Your task to perform on an android device: turn notification dots on Image 0: 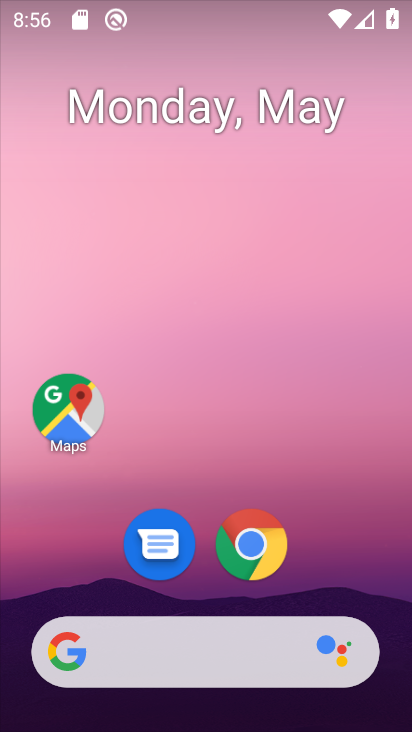
Step 0: drag from (112, 615) to (171, 295)
Your task to perform on an android device: turn notification dots on Image 1: 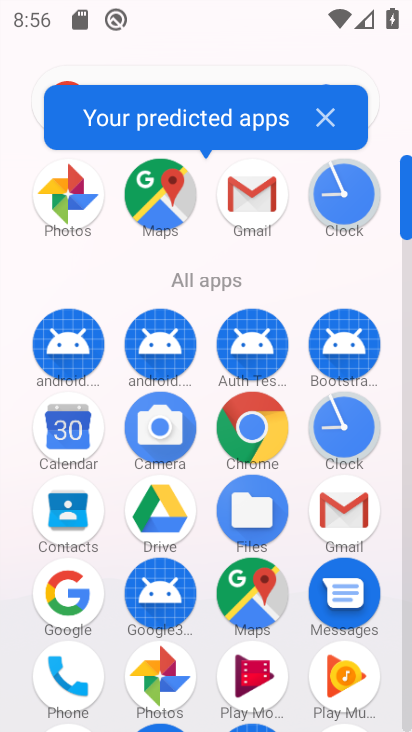
Step 1: drag from (153, 639) to (200, 354)
Your task to perform on an android device: turn notification dots on Image 2: 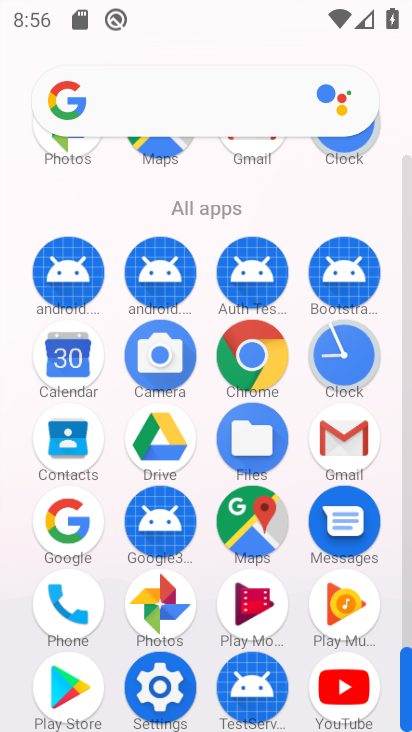
Step 2: click (162, 692)
Your task to perform on an android device: turn notification dots on Image 3: 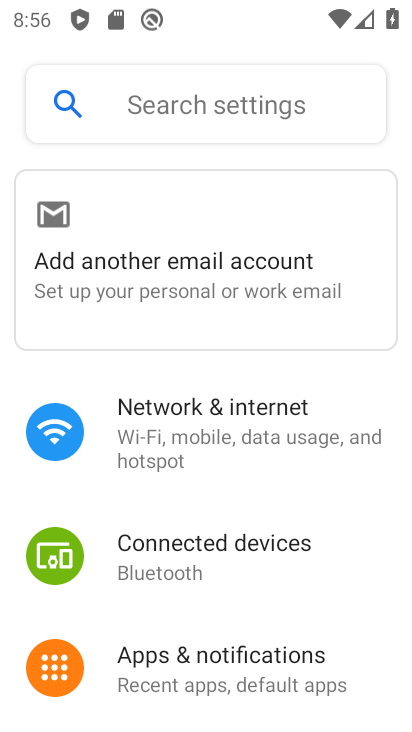
Step 3: drag from (147, 650) to (241, 300)
Your task to perform on an android device: turn notification dots on Image 4: 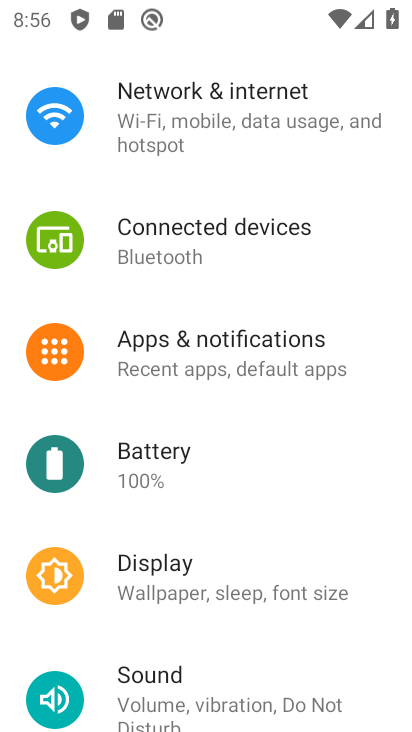
Step 4: drag from (172, 695) to (230, 422)
Your task to perform on an android device: turn notification dots on Image 5: 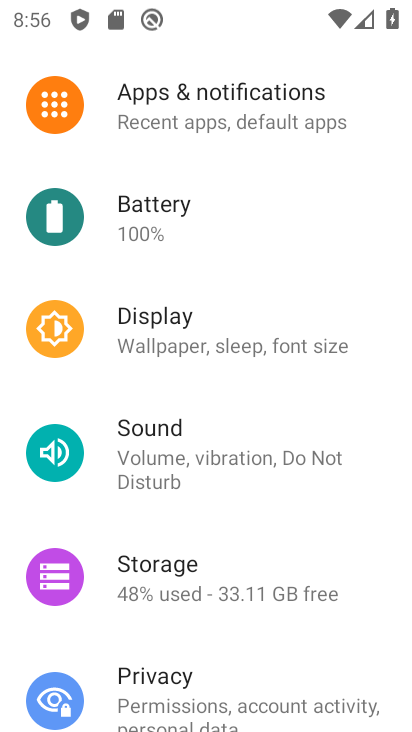
Step 5: click (288, 105)
Your task to perform on an android device: turn notification dots on Image 6: 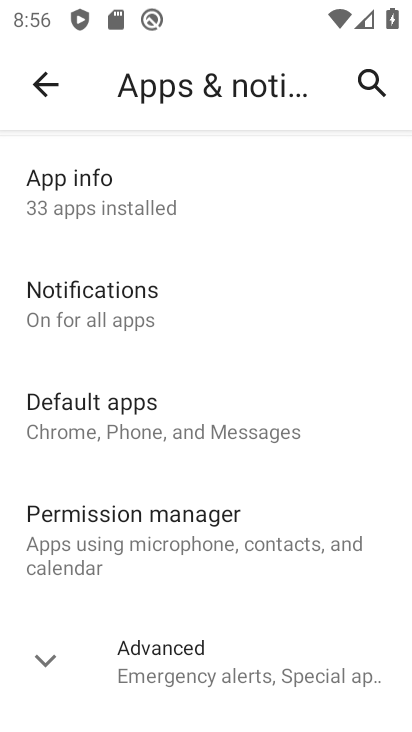
Step 6: click (184, 325)
Your task to perform on an android device: turn notification dots on Image 7: 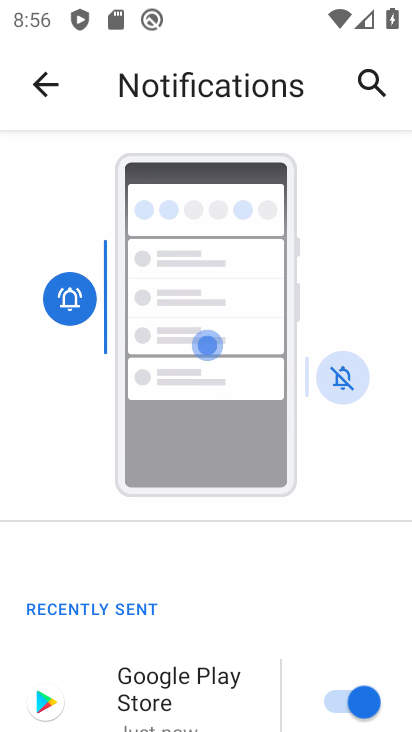
Step 7: drag from (206, 654) to (281, 296)
Your task to perform on an android device: turn notification dots on Image 8: 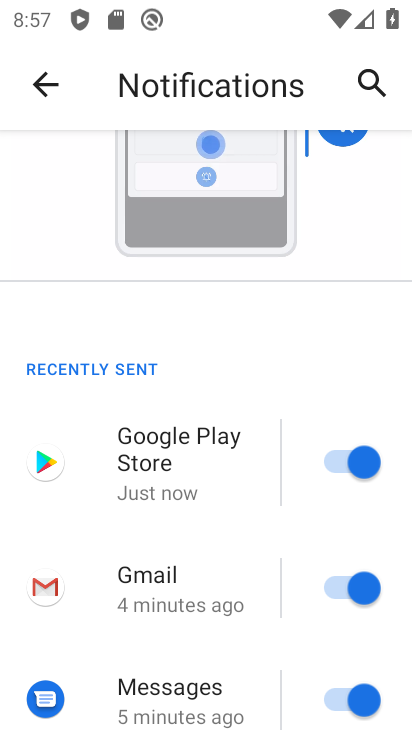
Step 8: drag from (178, 563) to (247, 204)
Your task to perform on an android device: turn notification dots on Image 9: 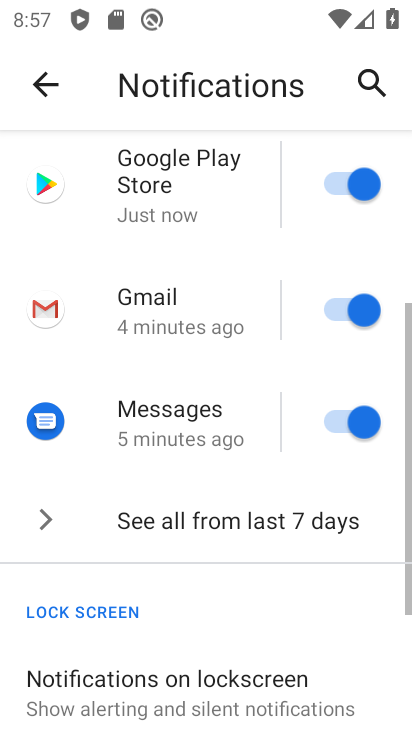
Step 9: drag from (178, 652) to (231, 349)
Your task to perform on an android device: turn notification dots on Image 10: 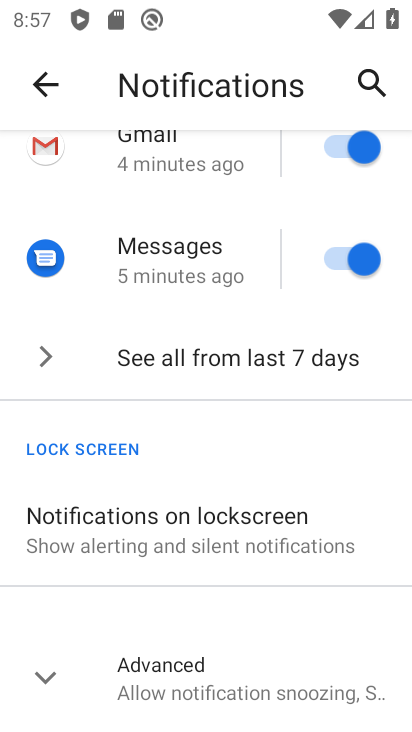
Step 10: click (191, 688)
Your task to perform on an android device: turn notification dots on Image 11: 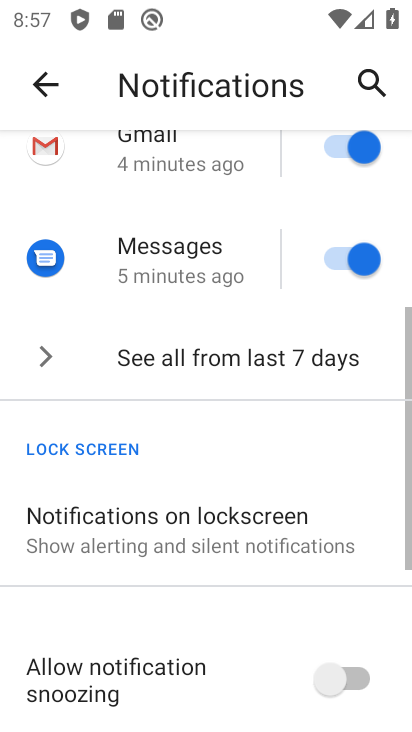
Step 11: task complete